Your task to perform on an android device: open app "Adobe Express: Graphic Design" (install if not already installed) and go to login screen Image 0: 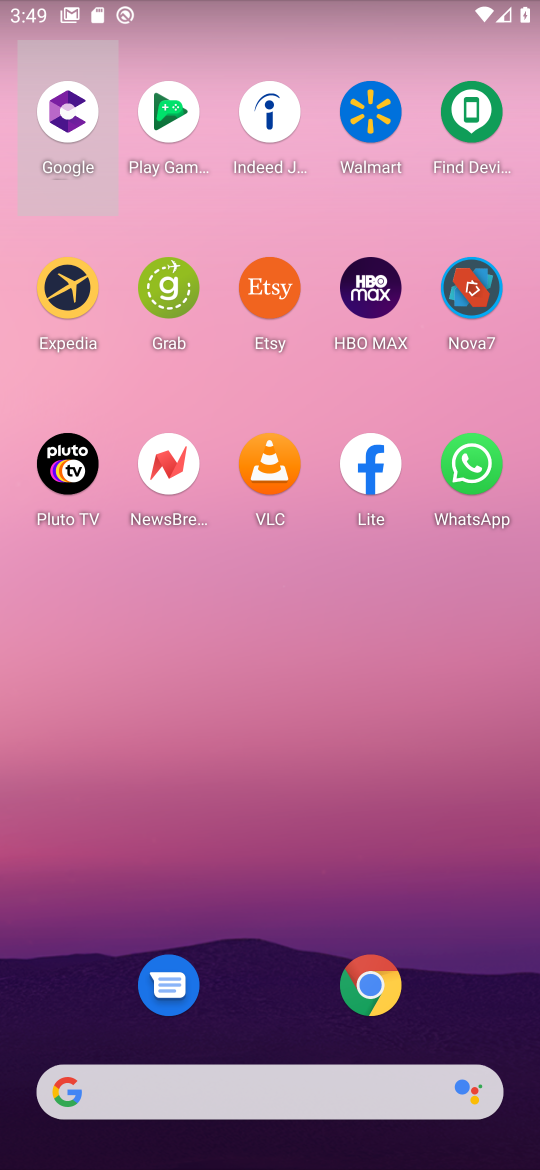
Step 0: drag from (238, 837) to (373, 129)
Your task to perform on an android device: open app "Adobe Express: Graphic Design" (install if not already installed) and go to login screen Image 1: 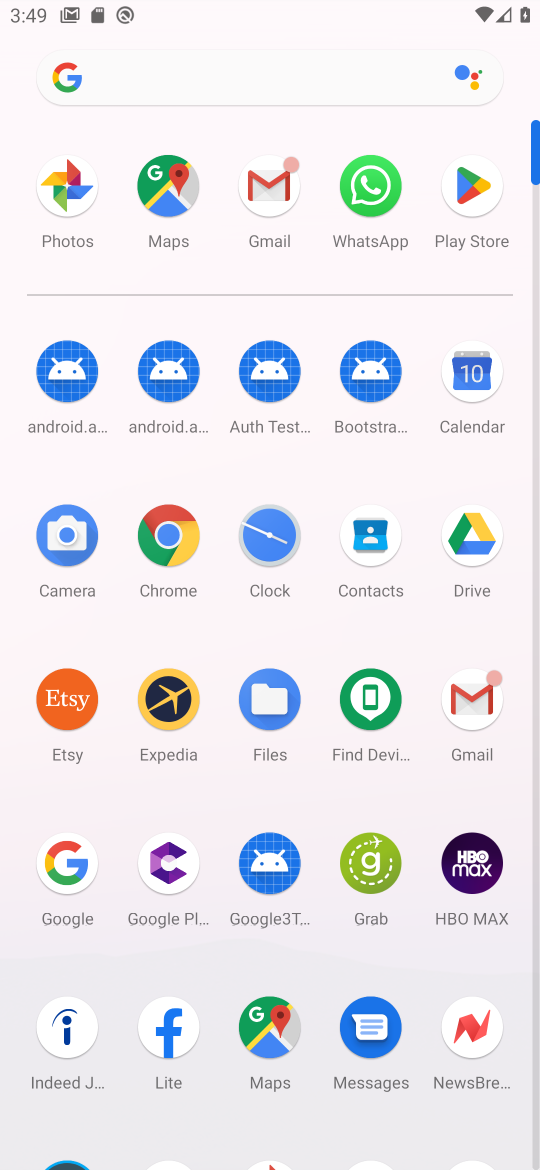
Step 1: click (469, 189)
Your task to perform on an android device: open app "Adobe Express: Graphic Design" (install if not already installed) and go to login screen Image 2: 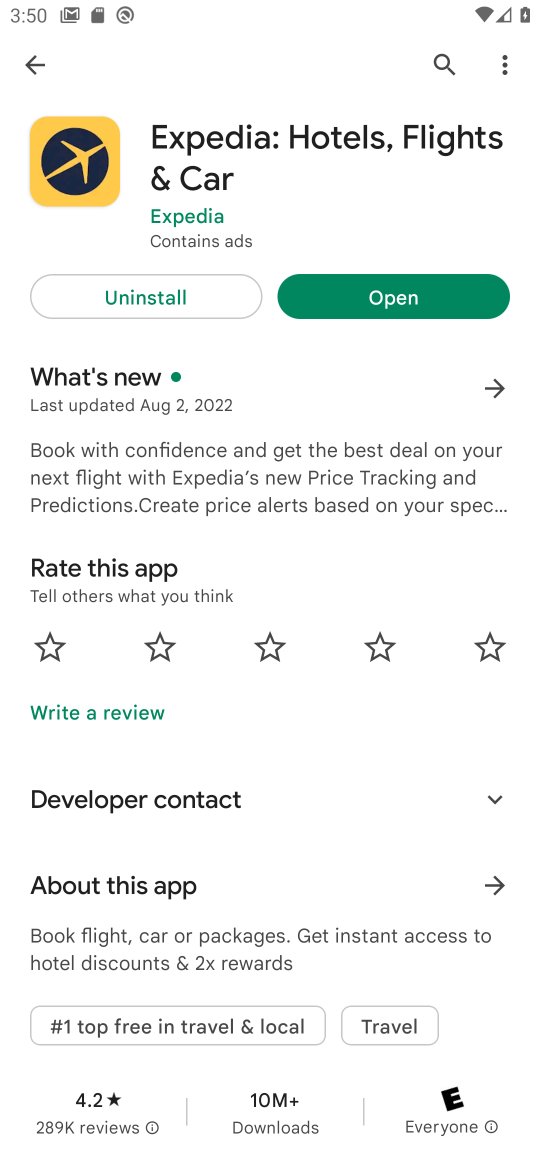
Step 2: click (43, 69)
Your task to perform on an android device: open app "Adobe Express: Graphic Design" (install if not already installed) and go to login screen Image 3: 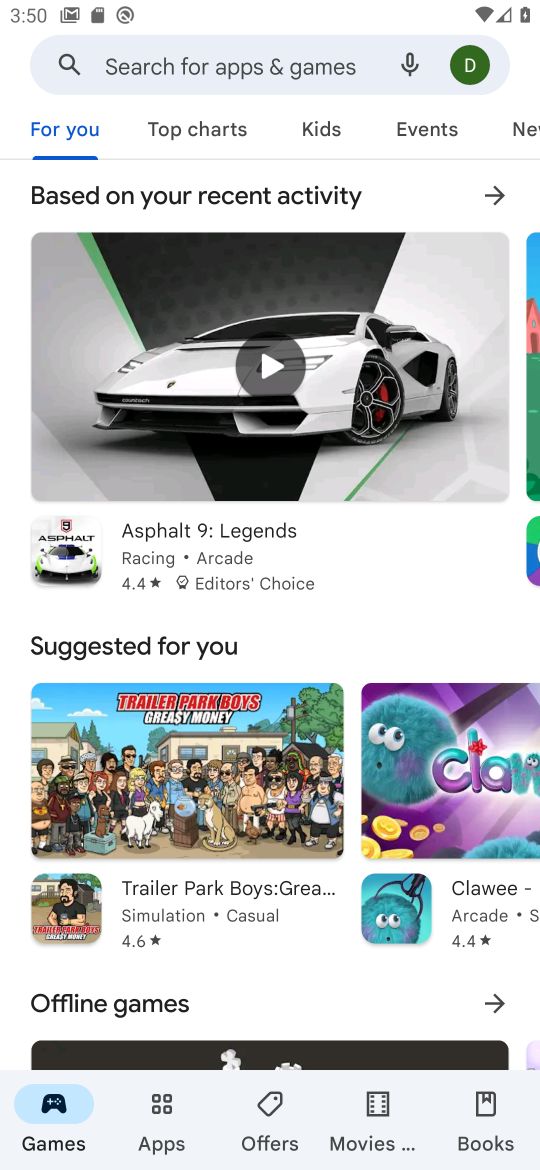
Step 3: click (199, 69)
Your task to perform on an android device: open app "Adobe Express: Graphic Design" (install if not already installed) and go to login screen Image 4: 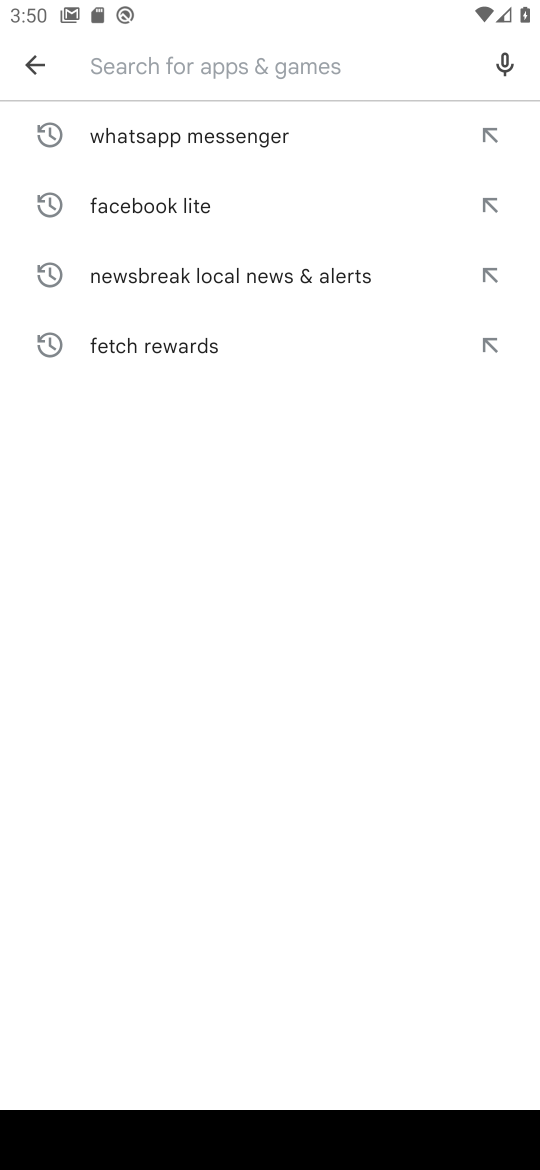
Step 4: type "Adobe Express: Graphic Design"
Your task to perform on an android device: open app "Adobe Express: Graphic Design" (install if not already installed) and go to login screen Image 5: 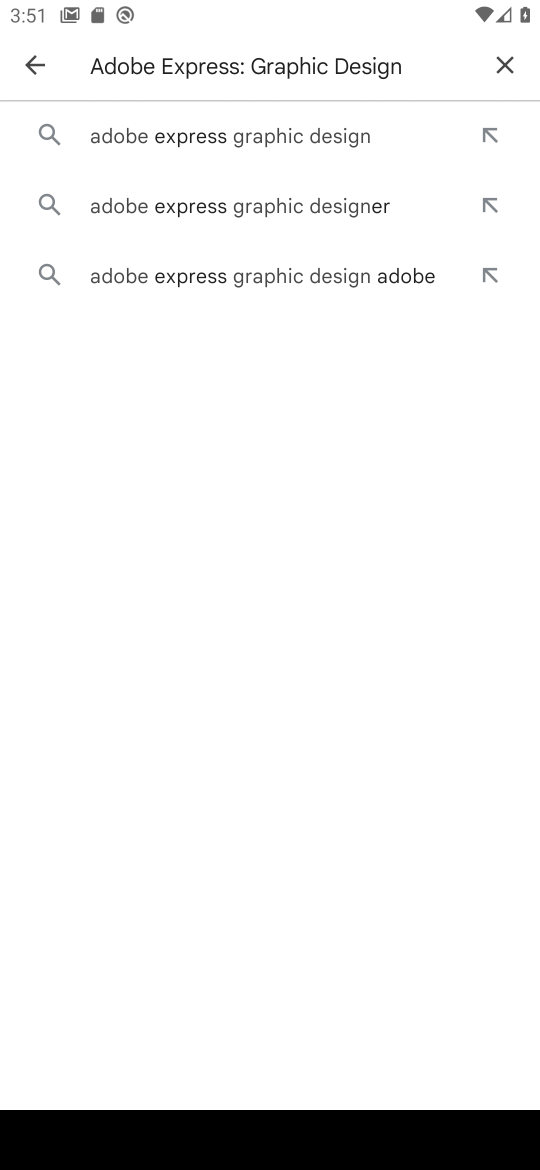
Step 5: click (198, 133)
Your task to perform on an android device: open app "Adobe Express: Graphic Design" (install if not already installed) and go to login screen Image 6: 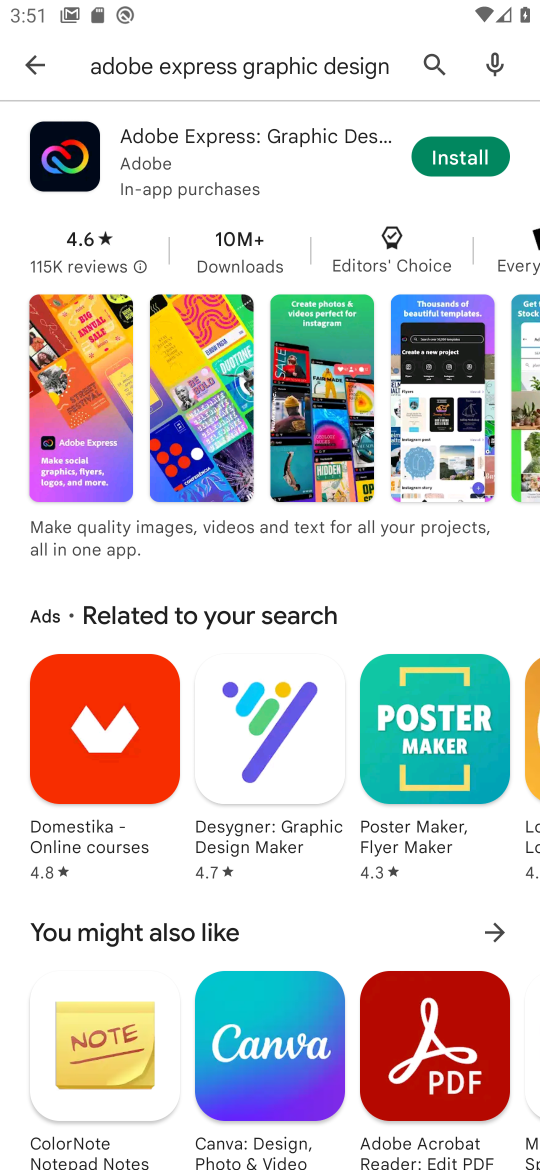
Step 6: click (453, 158)
Your task to perform on an android device: open app "Adobe Express: Graphic Design" (install if not already installed) and go to login screen Image 7: 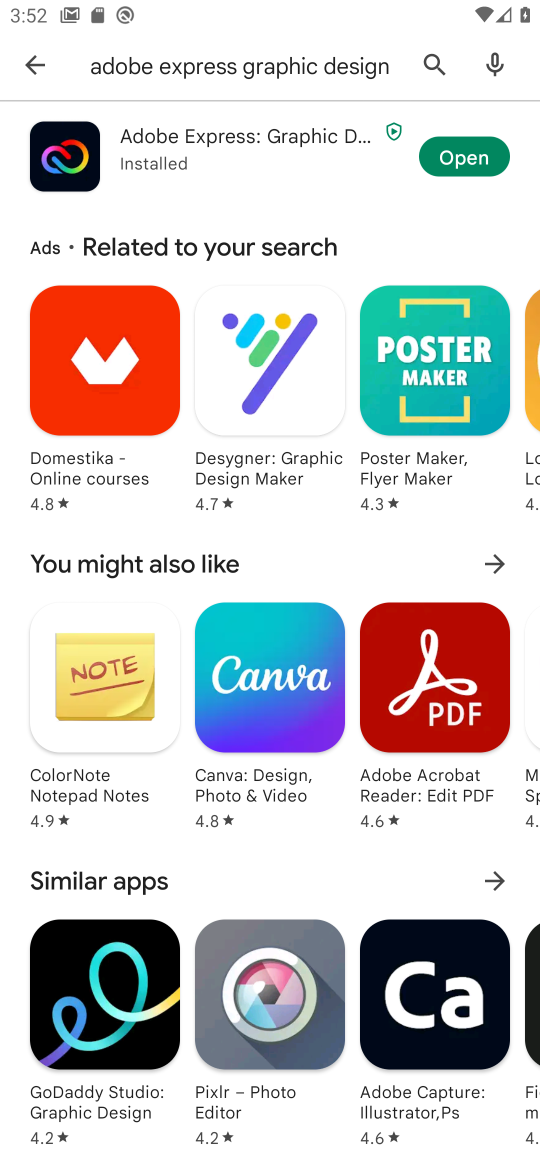
Step 7: click (453, 158)
Your task to perform on an android device: open app "Adobe Express: Graphic Design" (install if not already installed) and go to login screen Image 8: 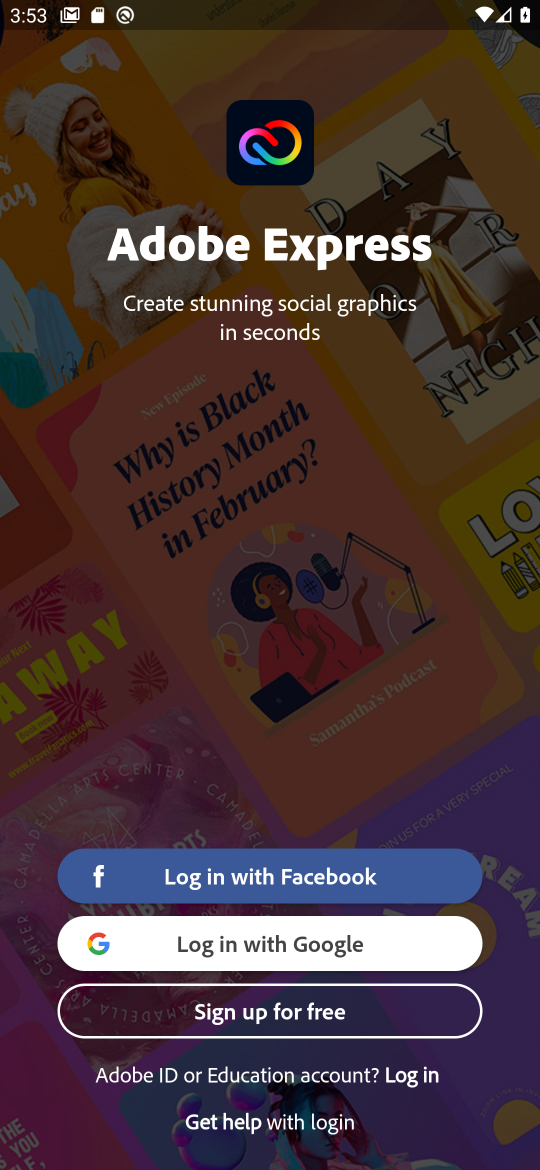
Step 8: task complete